Your task to perform on an android device: turn pop-ups on in chrome Image 0: 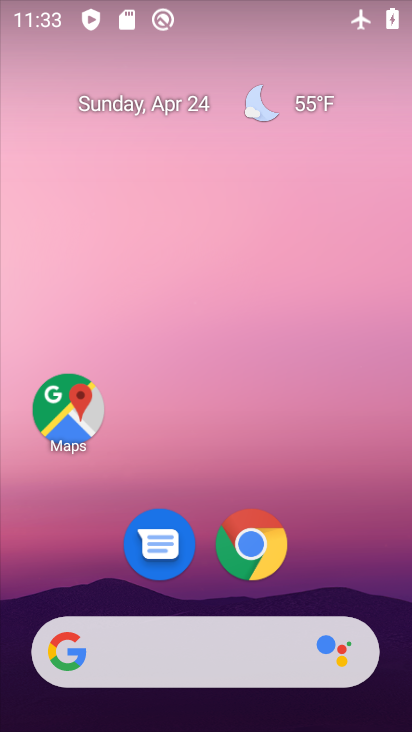
Step 0: click (245, 541)
Your task to perform on an android device: turn pop-ups on in chrome Image 1: 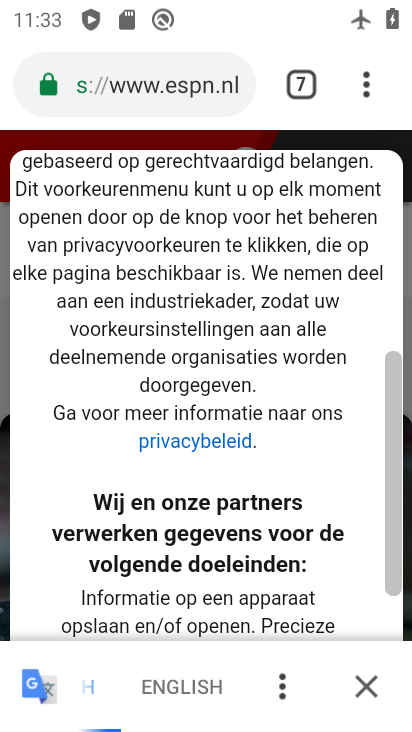
Step 1: drag from (366, 87) to (108, 591)
Your task to perform on an android device: turn pop-ups on in chrome Image 2: 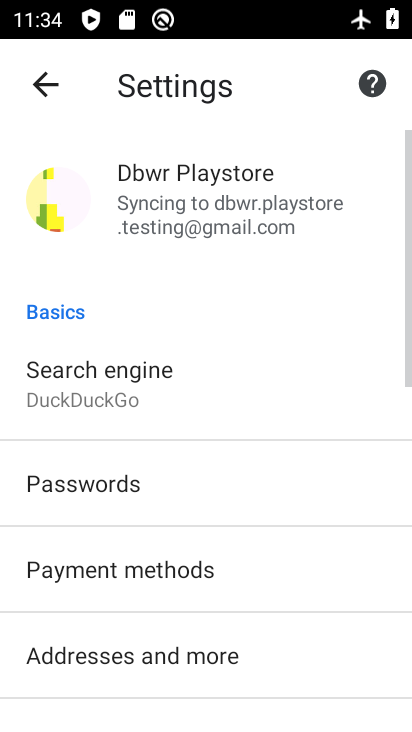
Step 2: drag from (289, 662) to (246, 286)
Your task to perform on an android device: turn pop-ups on in chrome Image 3: 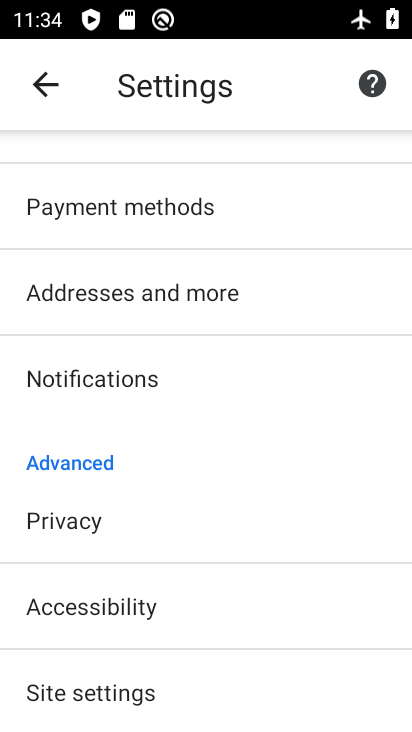
Step 3: click (78, 692)
Your task to perform on an android device: turn pop-ups on in chrome Image 4: 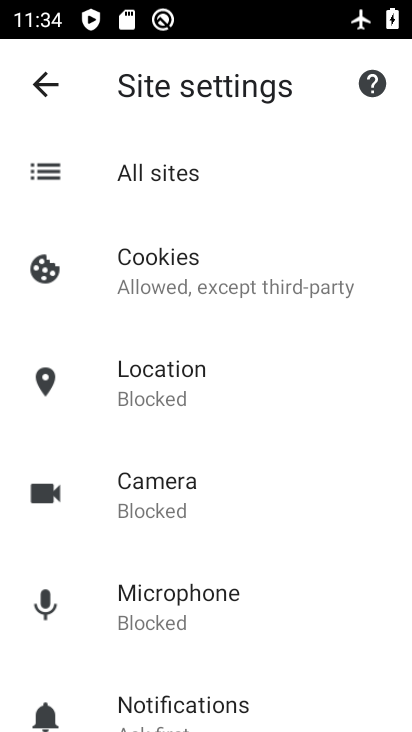
Step 4: drag from (227, 512) to (209, 331)
Your task to perform on an android device: turn pop-ups on in chrome Image 5: 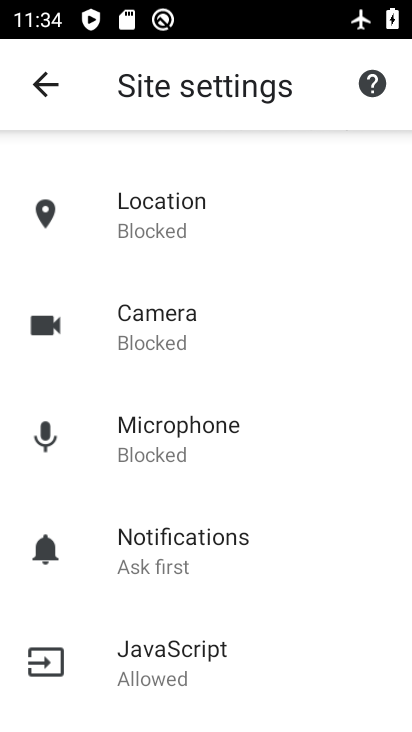
Step 5: drag from (189, 656) to (190, 294)
Your task to perform on an android device: turn pop-ups on in chrome Image 6: 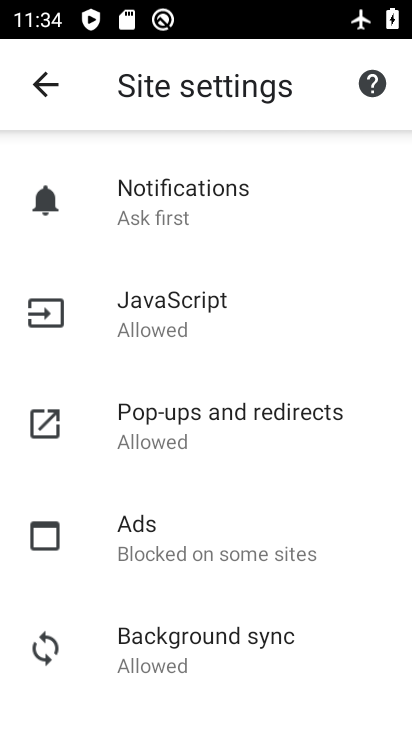
Step 6: click (151, 427)
Your task to perform on an android device: turn pop-ups on in chrome Image 7: 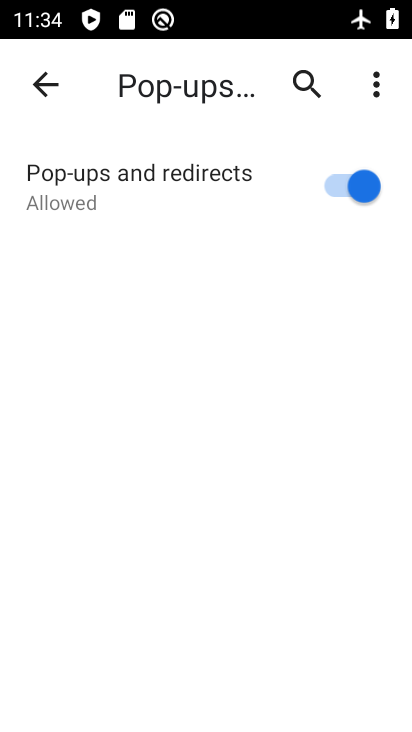
Step 7: task complete